Your task to perform on an android device: clear all cookies in the chrome app Image 0: 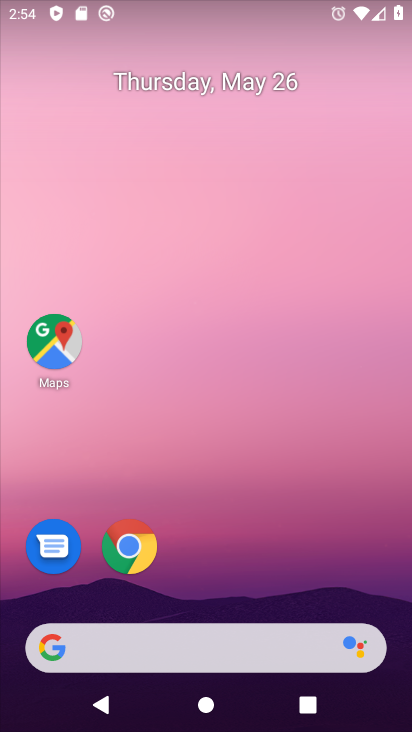
Step 0: click (134, 541)
Your task to perform on an android device: clear all cookies in the chrome app Image 1: 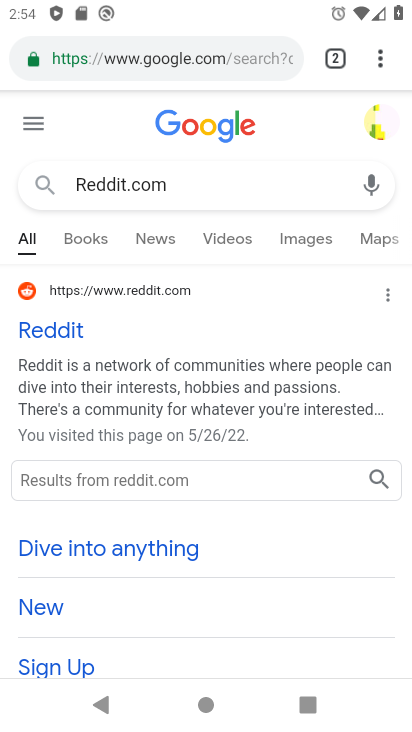
Step 1: click (379, 52)
Your task to perform on an android device: clear all cookies in the chrome app Image 2: 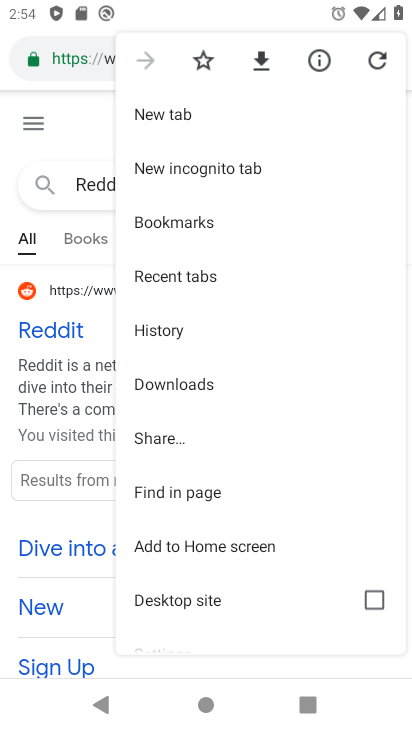
Step 2: click (162, 329)
Your task to perform on an android device: clear all cookies in the chrome app Image 3: 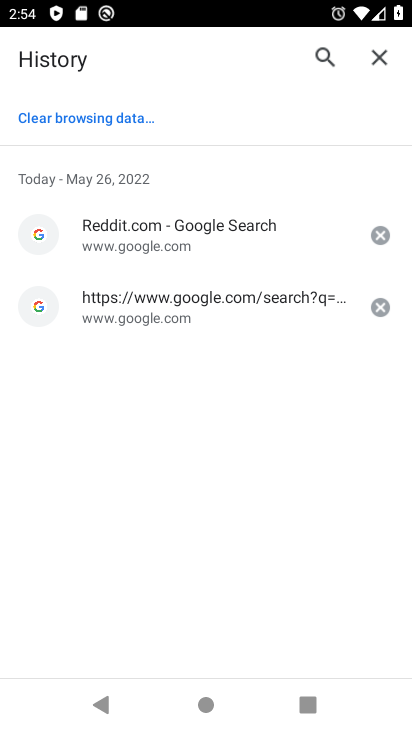
Step 3: click (94, 123)
Your task to perform on an android device: clear all cookies in the chrome app Image 4: 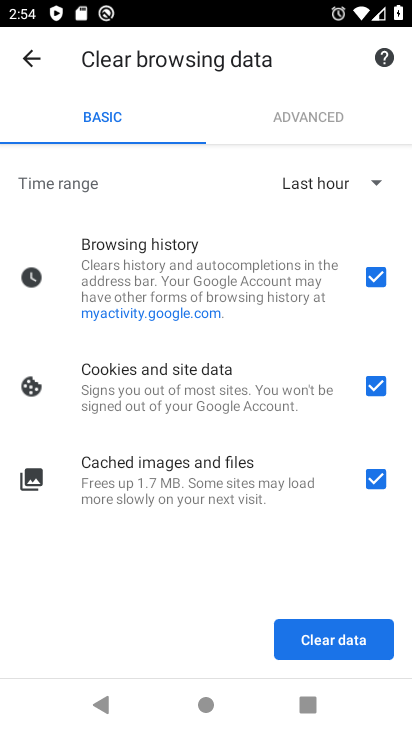
Step 4: click (312, 636)
Your task to perform on an android device: clear all cookies in the chrome app Image 5: 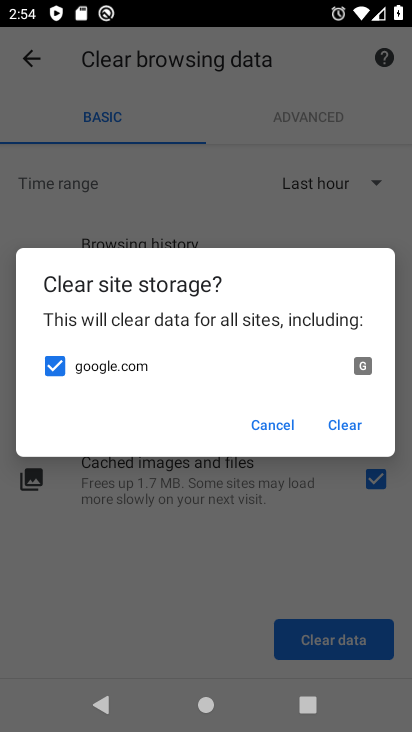
Step 5: click (353, 421)
Your task to perform on an android device: clear all cookies in the chrome app Image 6: 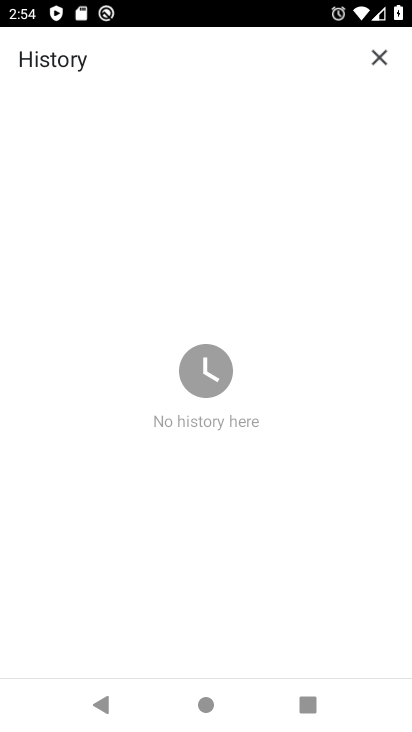
Step 6: task complete